Your task to perform on an android device: See recent photos Image 0: 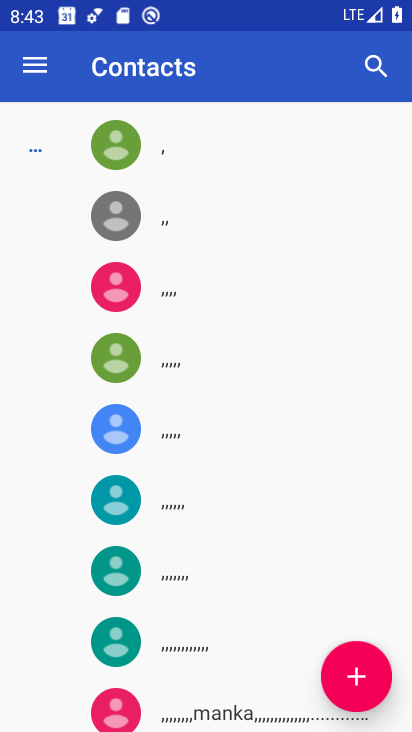
Step 0: press home button
Your task to perform on an android device: See recent photos Image 1: 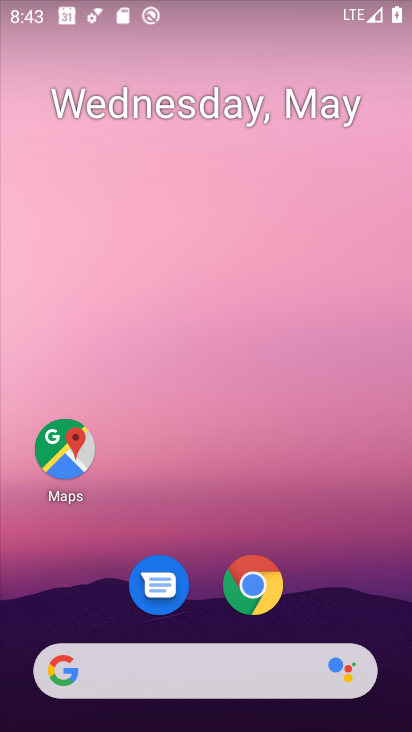
Step 1: drag from (323, 542) to (224, 55)
Your task to perform on an android device: See recent photos Image 2: 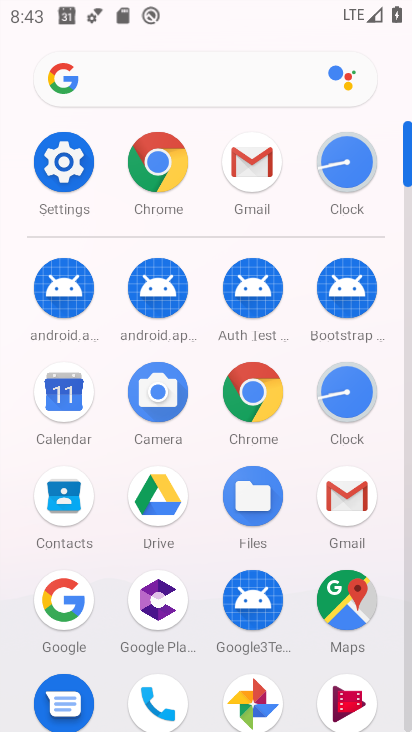
Step 2: click (262, 690)
Your task to perform on an android device: See recent photos Image 3: 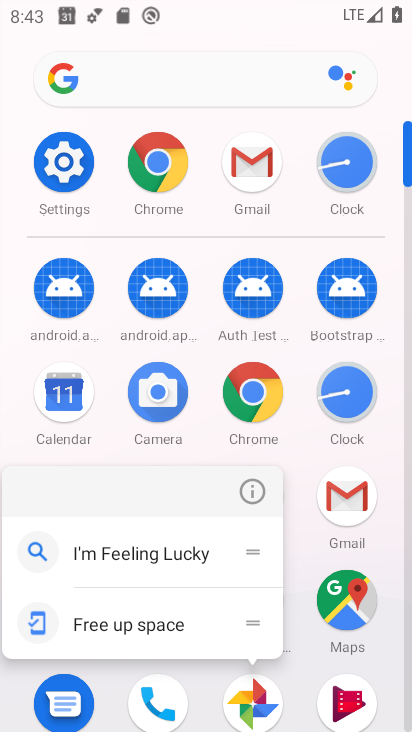
Step 3: click (251, 684)
Your task to perform on an android device: See recent photos Image 4: 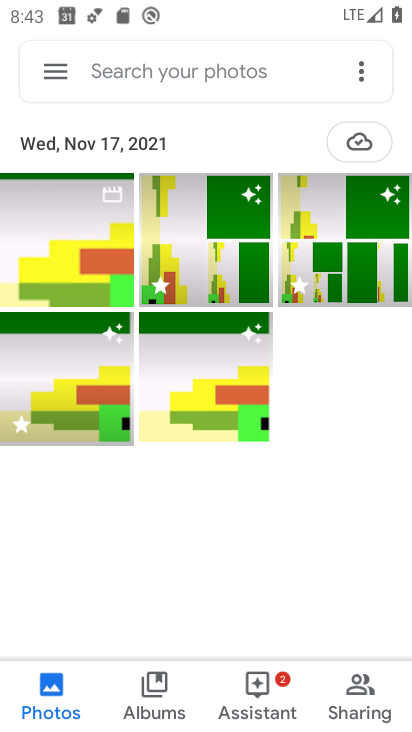
Step 4: click (202, 64)
Your task to perform on an android device: See recent photos Image 5: 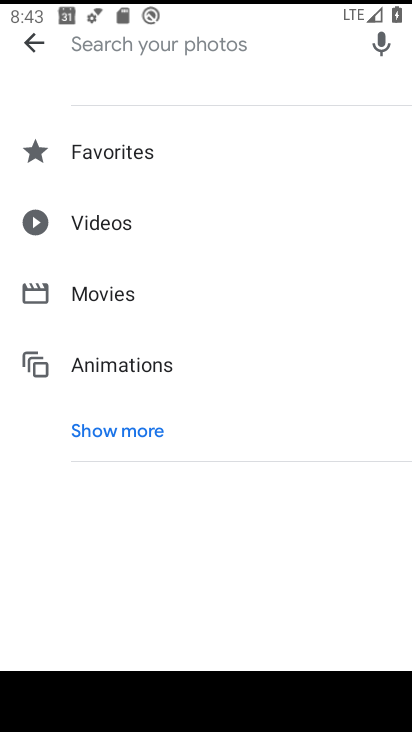
Step 5: click (149, 428)
Your task to perform on an android device: See recent photos Image 6: 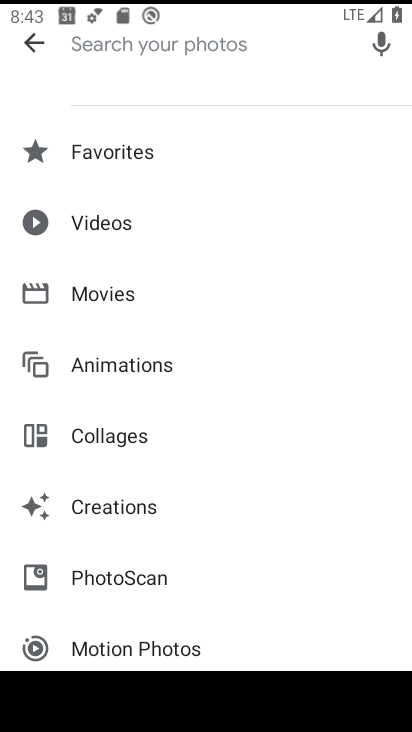
Step 6: drag from (258, 553) to (248, 187)
Your task to perform on an android device: See recent photos Image 7: 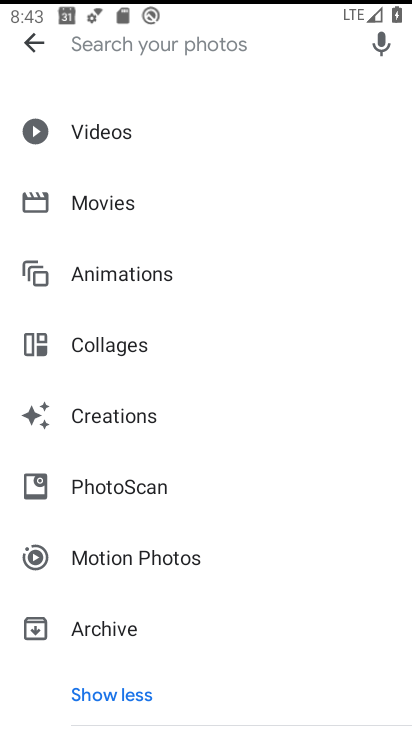
Step 7: click (32, 43)
Your task to perform on an android device: See recent photos Image 8: 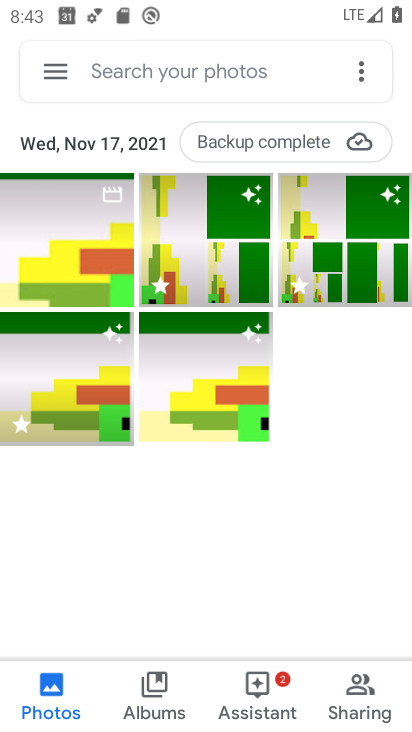
Step 8: click (56, 66)
Your task to perform on an android device: See recent photos Image 9: 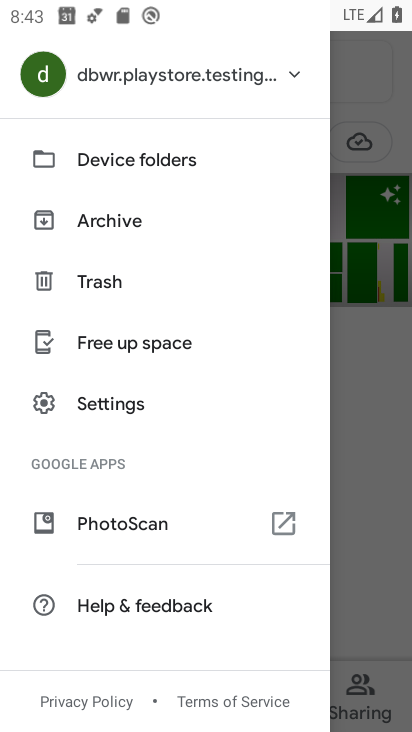
Step 9: click (378, 348)
Your task to perform on an android device: See recent photos Image 10: 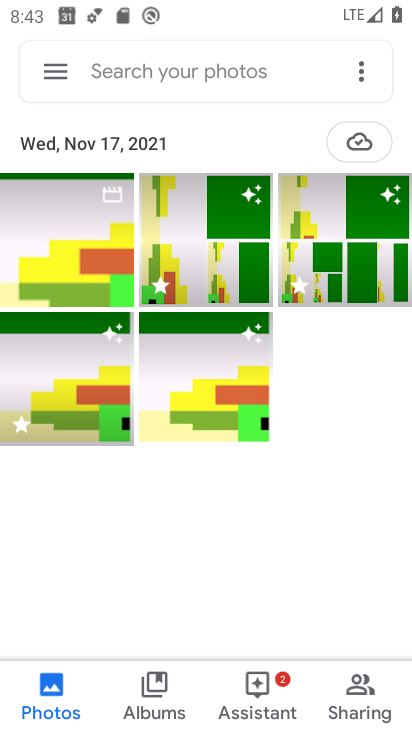
Step 10: click (358, 60)
Your task to perform on an android device: See recent photos Image 11: 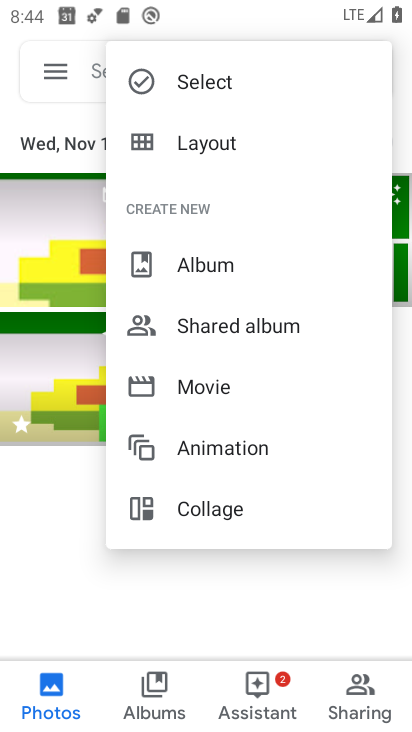
Step 11: click (316, 573)
Your task to perform on an android device: See recent photos Image 12: 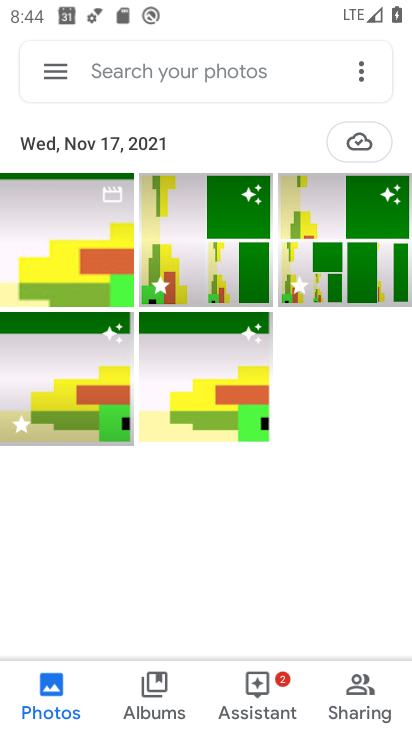
Step 12: task complete